Your task to perform on an android device: Go to notification settings Image 0: 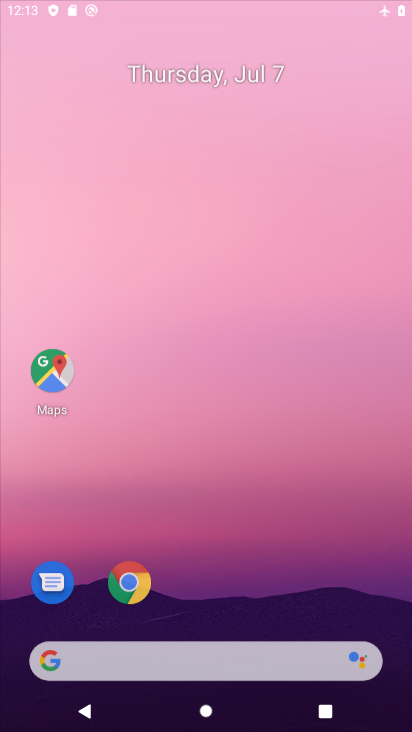
Step 0: click (316, 111)
Your task to perform on an android device: Go to notification settings Image 1: 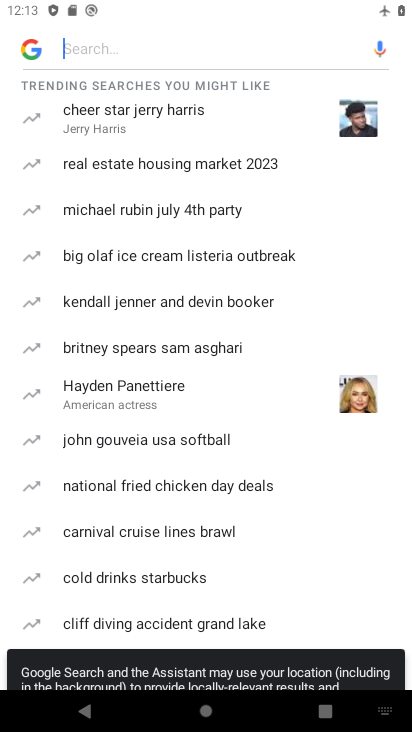
Step 1: press home button
Your task to perform on an android device: Go to notification settings Image 2: 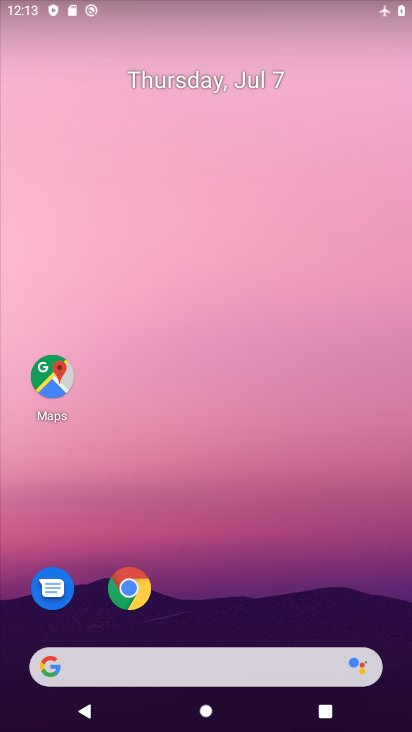
Step 2: drag from (217, 485) to (225, 247)
Your task to perform on an android device: Go to notification settings Image 3: 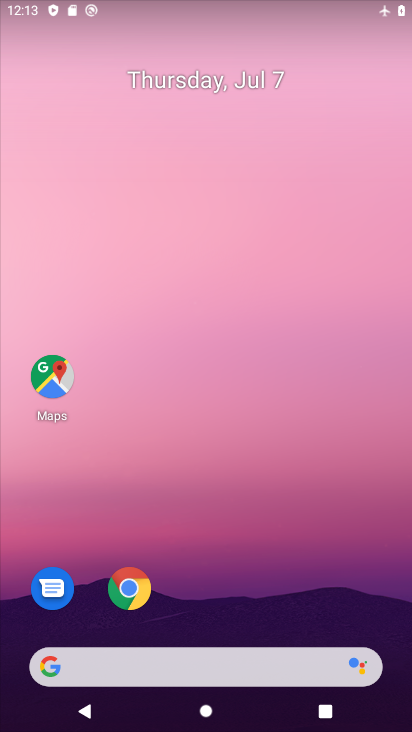
Step 3: drag from (194, 621) to (256, 117)
Your task to perform on an android device: Go to notification settings Image 4: 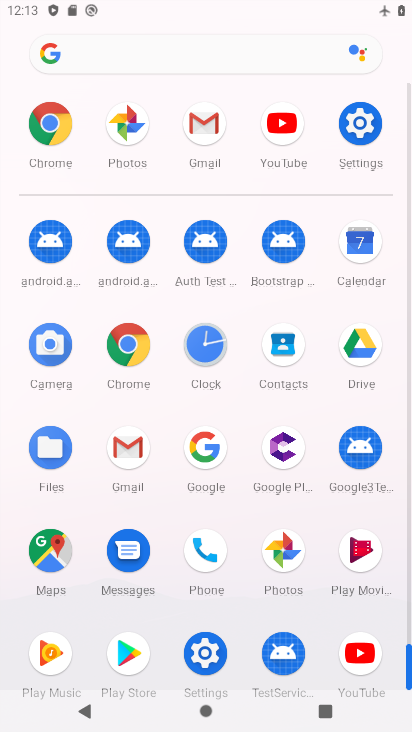
Step 4: click (357, 134)
Your task to perform on an android device: Go to notification settings Image 5: 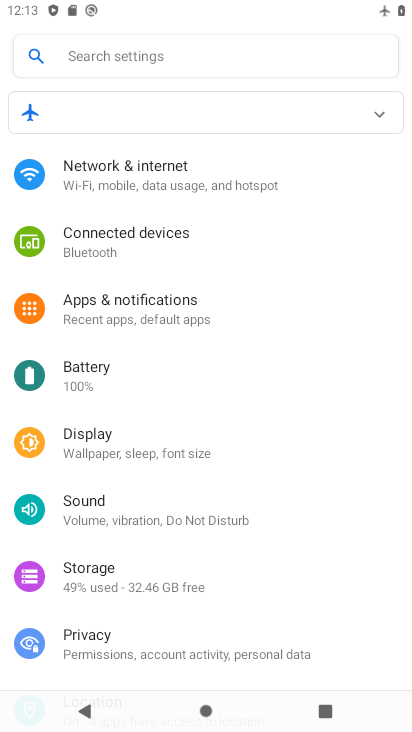
Step 5: click (112, 321)
Your task to perform on an android device: Go to notification settings Image 6: 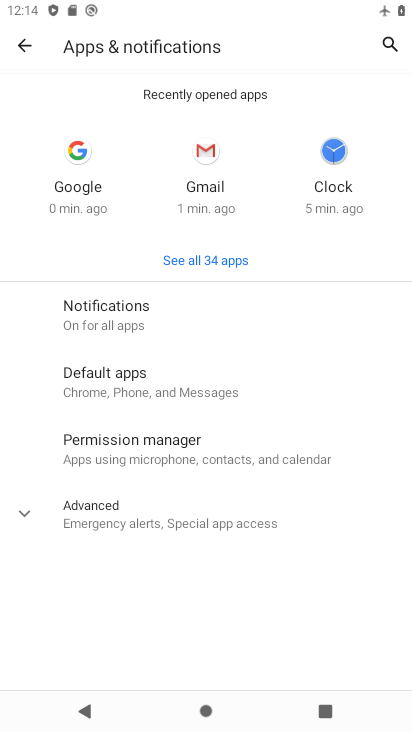
Step 6: click (119, 313)
Your task to perform on an android device: Go to notification settings Image 7: 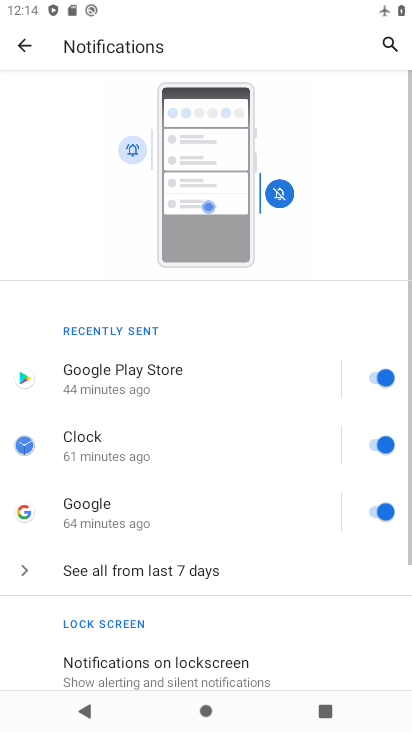
Step 7: drag from (205, 506) to (268, 159)
Your task to perform on an android device: Go to notification settings Image 8: 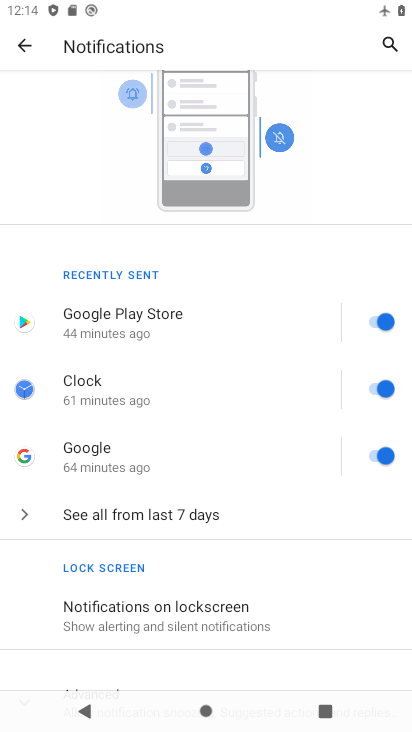
Step 8: click (215, 238)
Your task to perform on an android device: Go to notification settings Image 9: 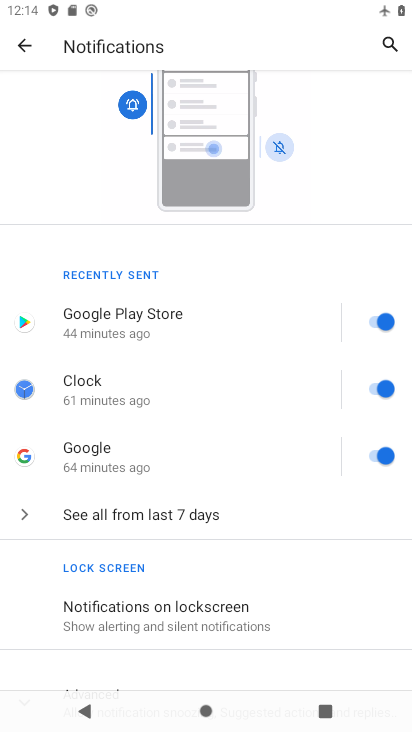
Step 9: task complete